Your task to perform on an android device: Open the calendar app, open the side menu, and click the "Day" option Image 0: 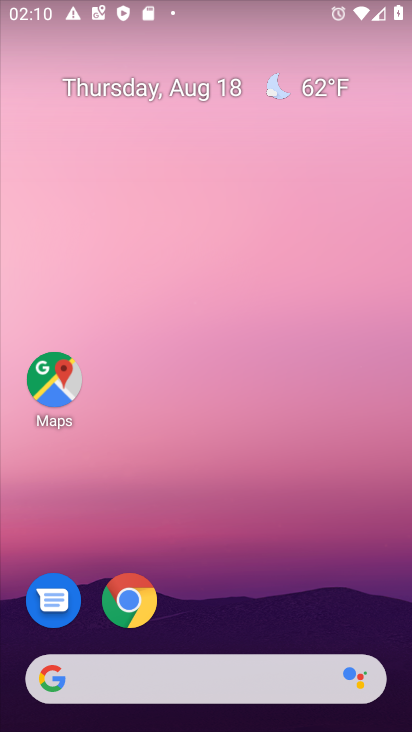
Step 0: press home button
Your task to perform on an android device: Open the calendar app, open the side menu, and click the "Day" option Image 1: 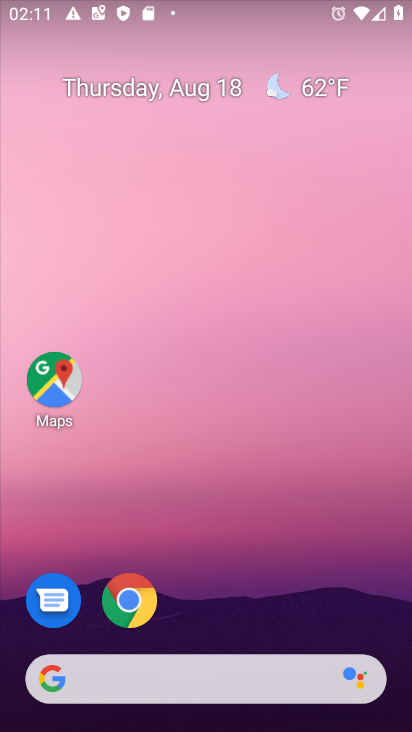
Step 1: drag from (276, 609) to (300, 133)
Your task to perform on an android device: Open the calendar app, open the side menu, and click the "Day" option Image 2: 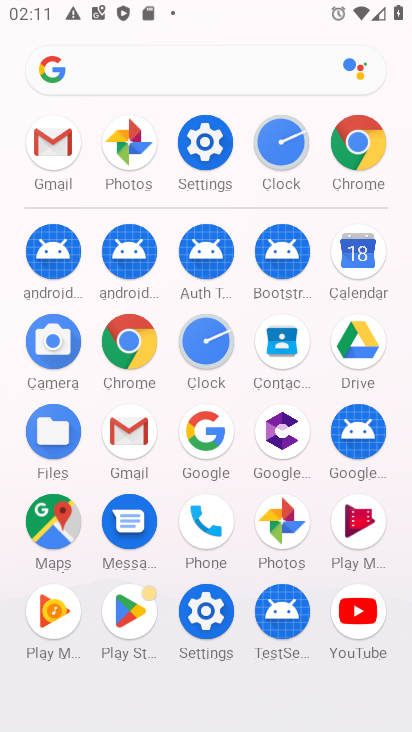
Step 2: click (363, 266)
Your task to perform on an android device: Open the calendar app, open the side menu, and click the "Day" option Image 3: 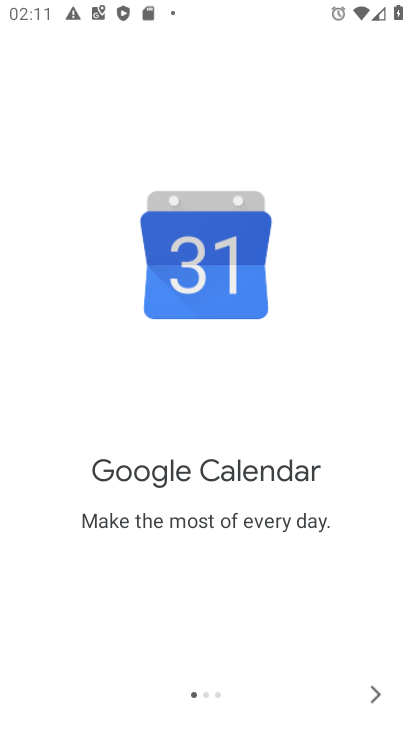
Step 3: click (374, 694)
Your task to perform on an android device: Open the calendar app, open the side menu, and click the "Day" option Image 4: 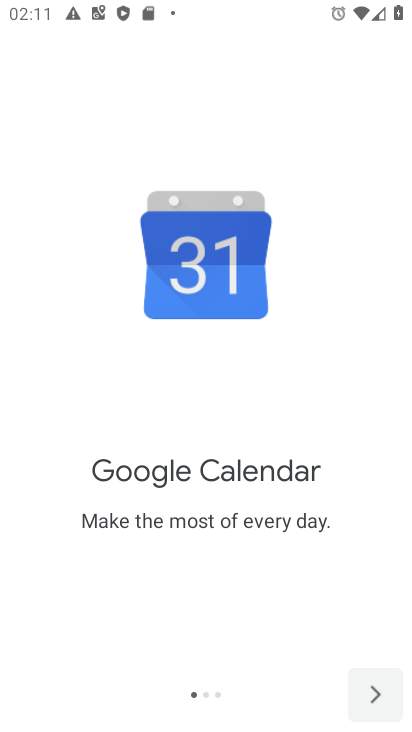
Step 4: click (374, 694)
Your task to perform on an android device: Open the calendar app, open the side menu, and click the "Day" option Image 5: 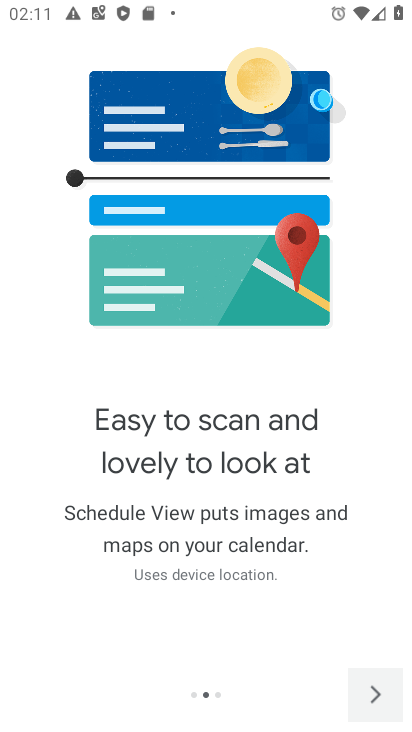
Step 5: click (374, 694)
Your task to perform on an android device: Open the calendar app, open the side menu, and click the "Day" option Image 6: 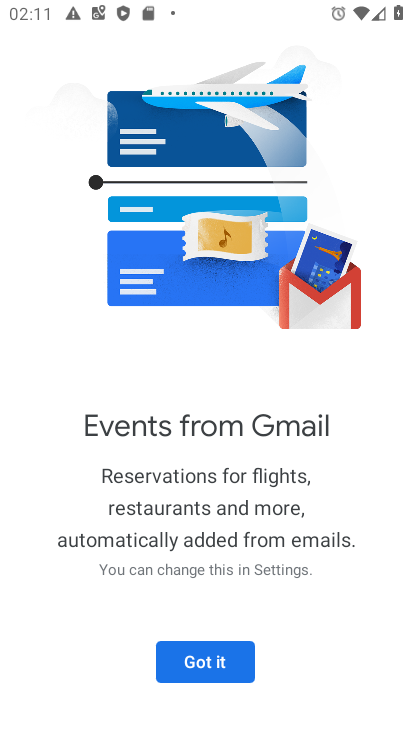
Step 6: click (372, 686)
Your task to perform on an android device: Open the calendar app, open the side menu, and click the "Day" option Image 7: 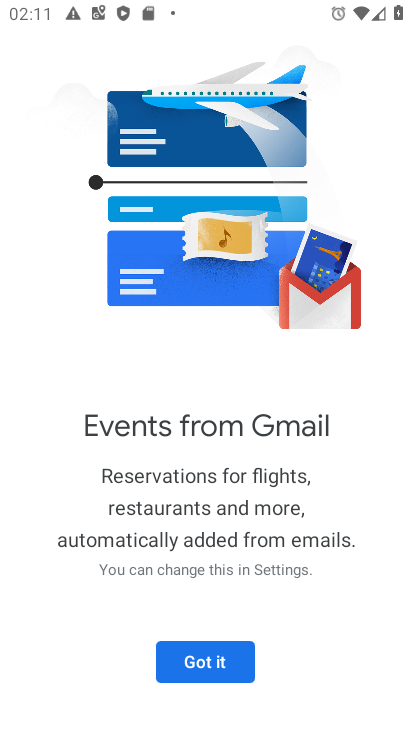
Step 7: click (246, 656)
Your task to perform on an android device: Open the calendar app, open the side menu, and click the "Day" option Image 8: 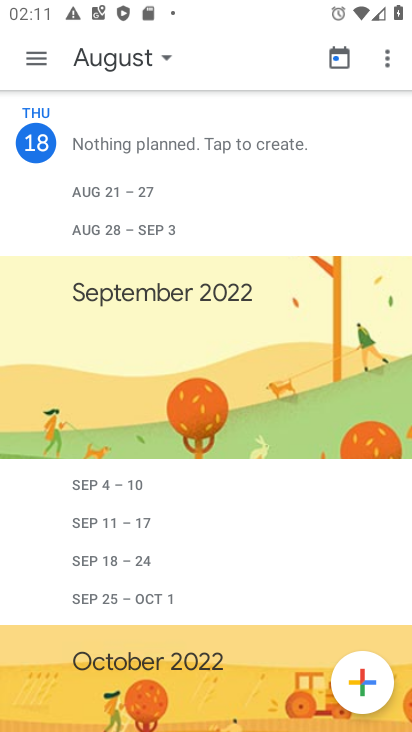
Step 8: click (39, 55)
Your task to perform on an android device: Open the calendar app, open the side menu, and click the "Day" option Image 9: 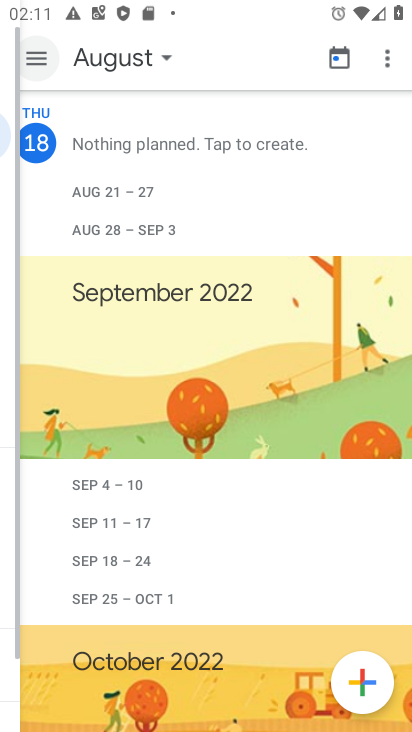
Step 9: click (40, 57)
Your task to perform on an android device: Open the calendar app, open the side menu, and click the "Day" option Image 10: 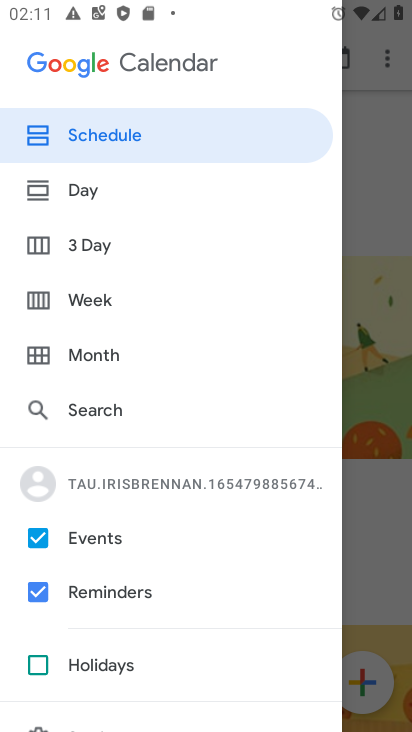
Step 10: click (122, 190)
Your task to perform on an android device: Open the calendar app, open the side menu, and click the "Day" option Image 11: 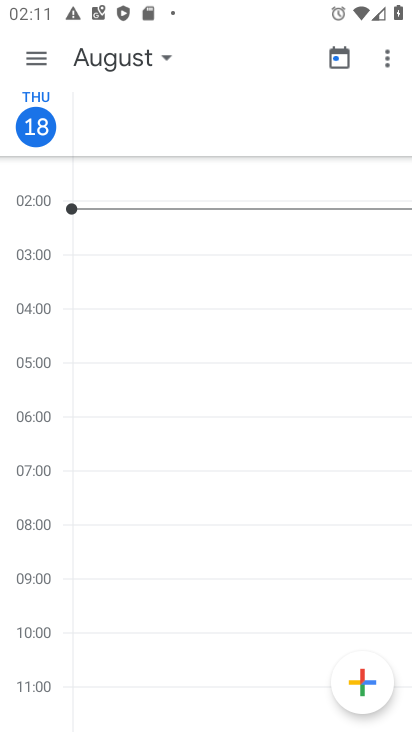
Step 11: task complete